Your task to perform on an android device: find which apps use the phone's location Image 0: 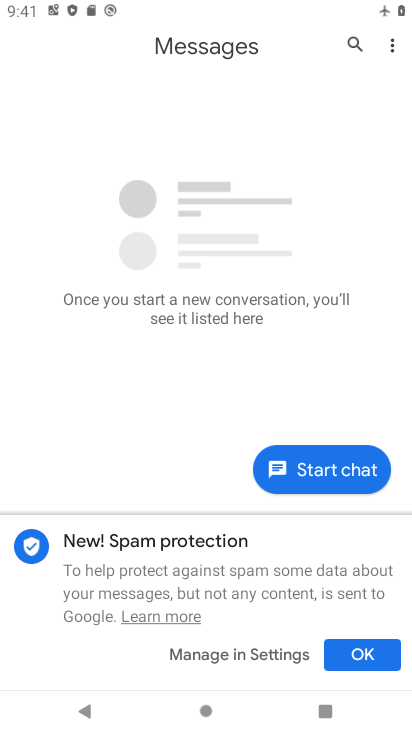
Step 0: press home button
Your task to perform on an android device: find which apps use the phone's location Image 1: 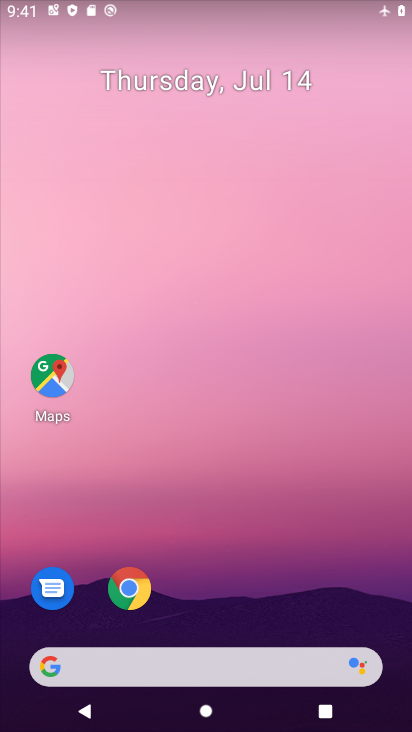
Step 1: drag from (389, 637) to (235, 33)
Your task to perform on an android device: find which apps use the phone's location Image 2: 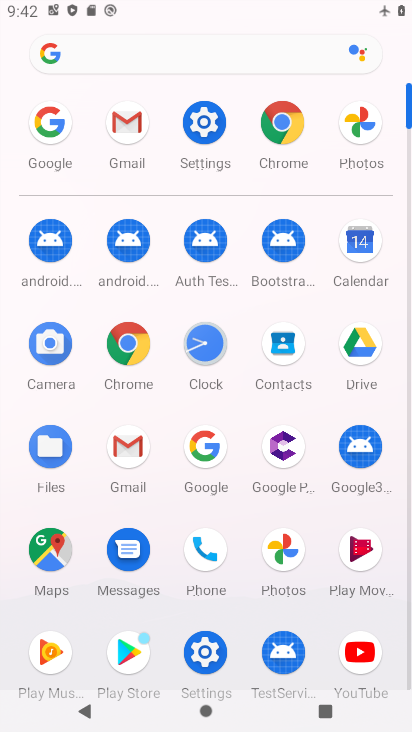
Step 2: click (220, 661)
Your task to perform on an android device: find which apps use the phone's location Image 3: 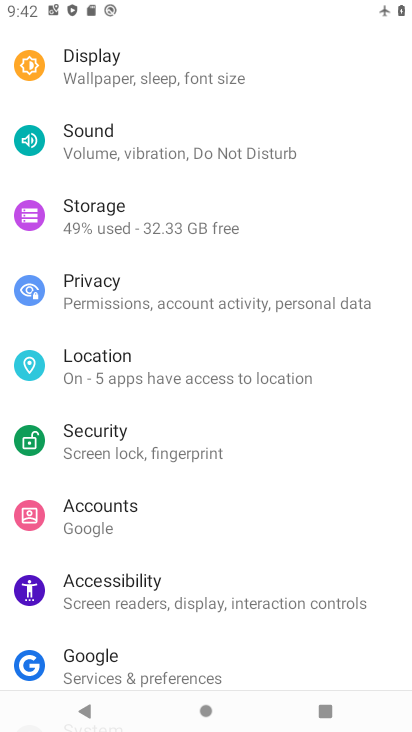
Step 3: click (135, 360)
Your task to perform on an android device: find which apps use the phone's location Image 4: 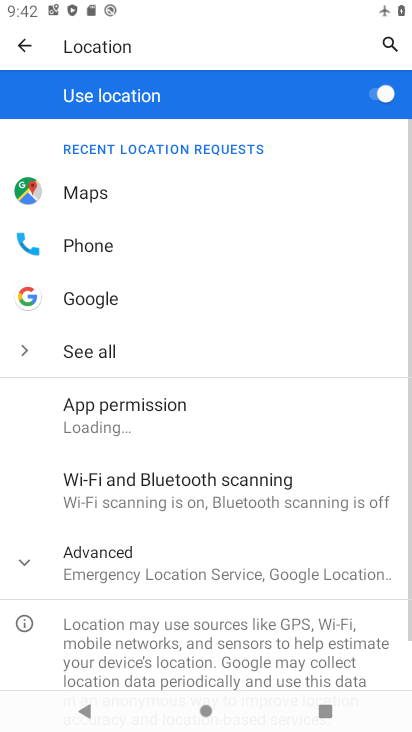
Step 4: click (92, 566)
Your task to perform on an android device: find which apps use the phone's location Image 5: 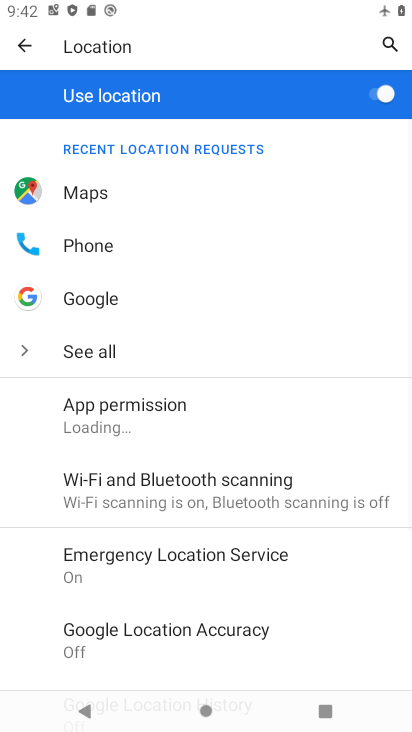
Step 5: click (116, 408)
Your task to perform on an android device: find which apps use the phone's location Image 6: 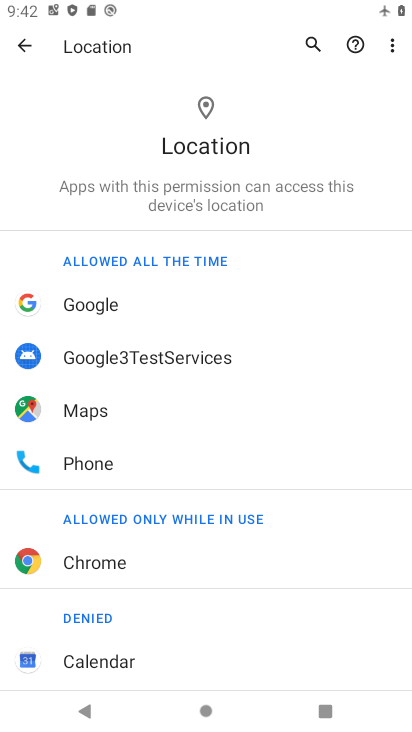
Step 6: click (98, 470)
Your task to perform on an android device: find which apps use the phone's location Image 7: 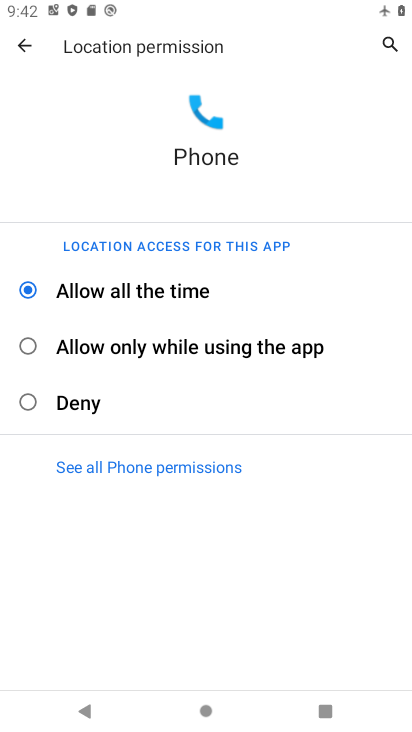
Step 7: task complete